Your task to perform on an android device: open app "Firefox Browser" (install if not already installed) Image 0: 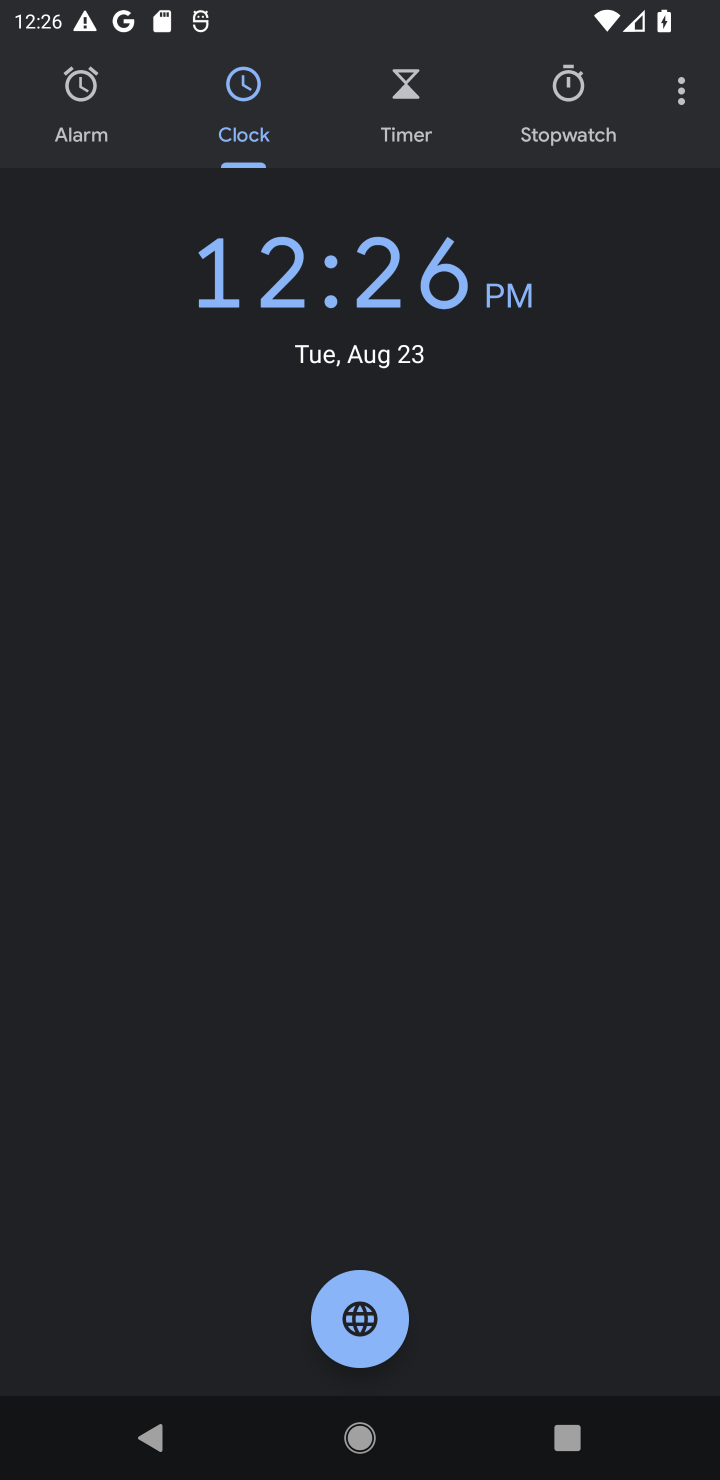
Step 0: press back button
Your task to perform on an android device: open app "Firefox Browser" (install if not already installed) Image 1: 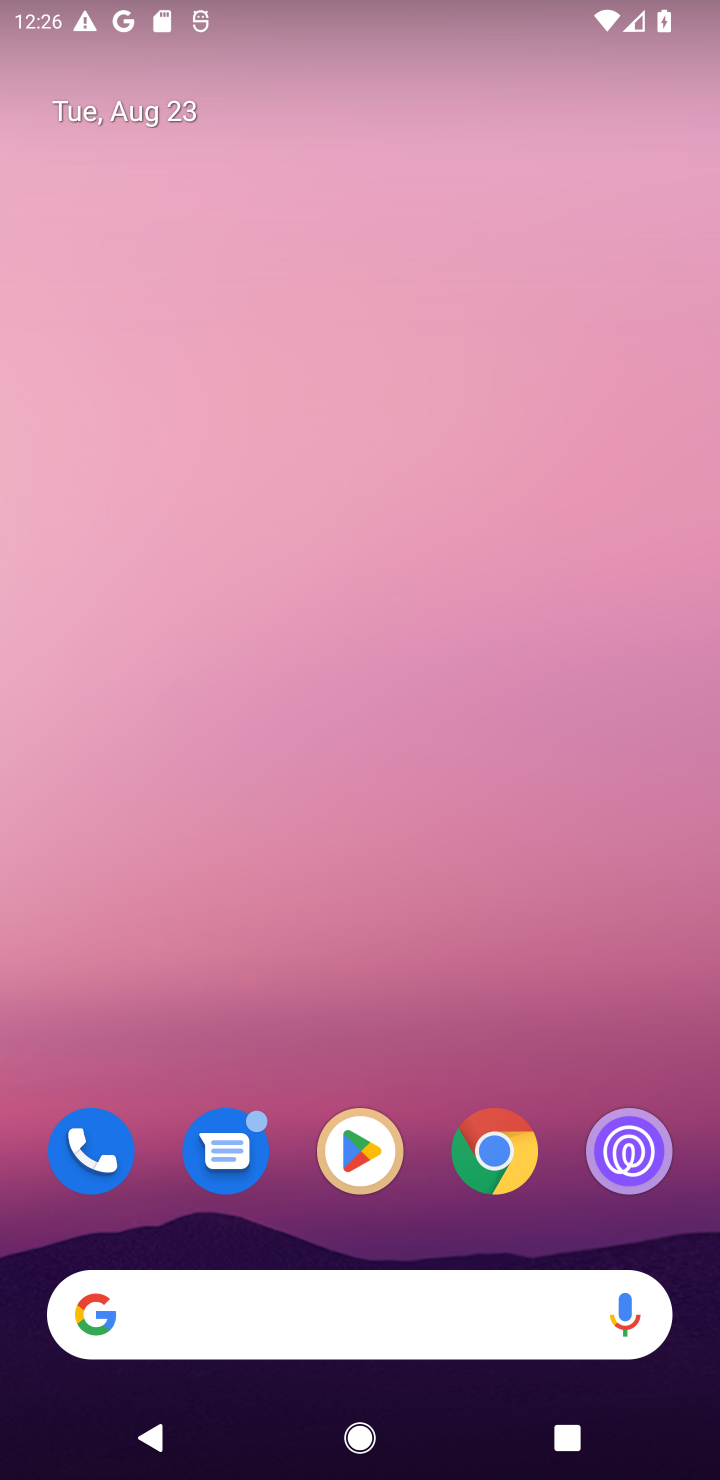
Step 1: click (345, 1127)
Your task to perform on an android device: open app "Firefox Browser" (install if not already installed) Image 2: 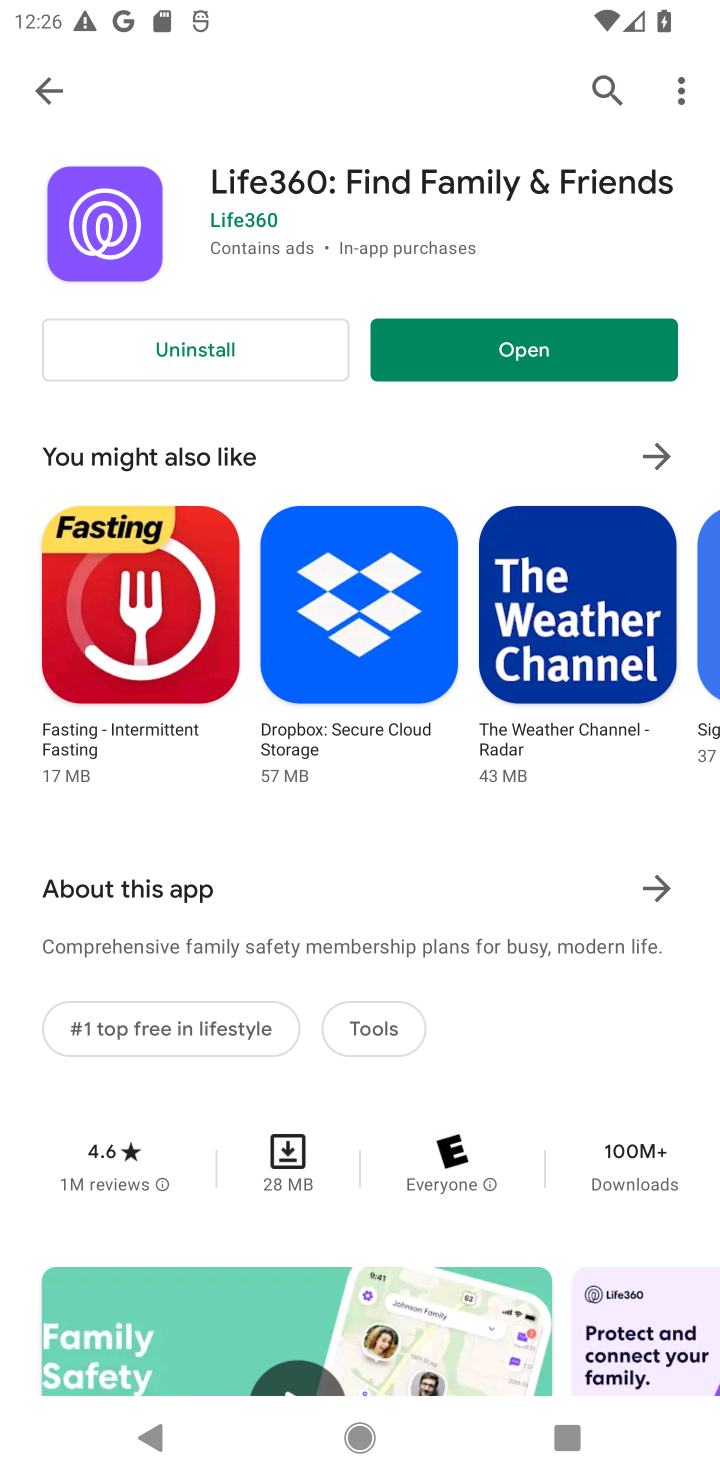
Step 2: click (593, 94)
Your task to perform on an android device: open app "Firefox Browser" (install if not already installed) Image 3: 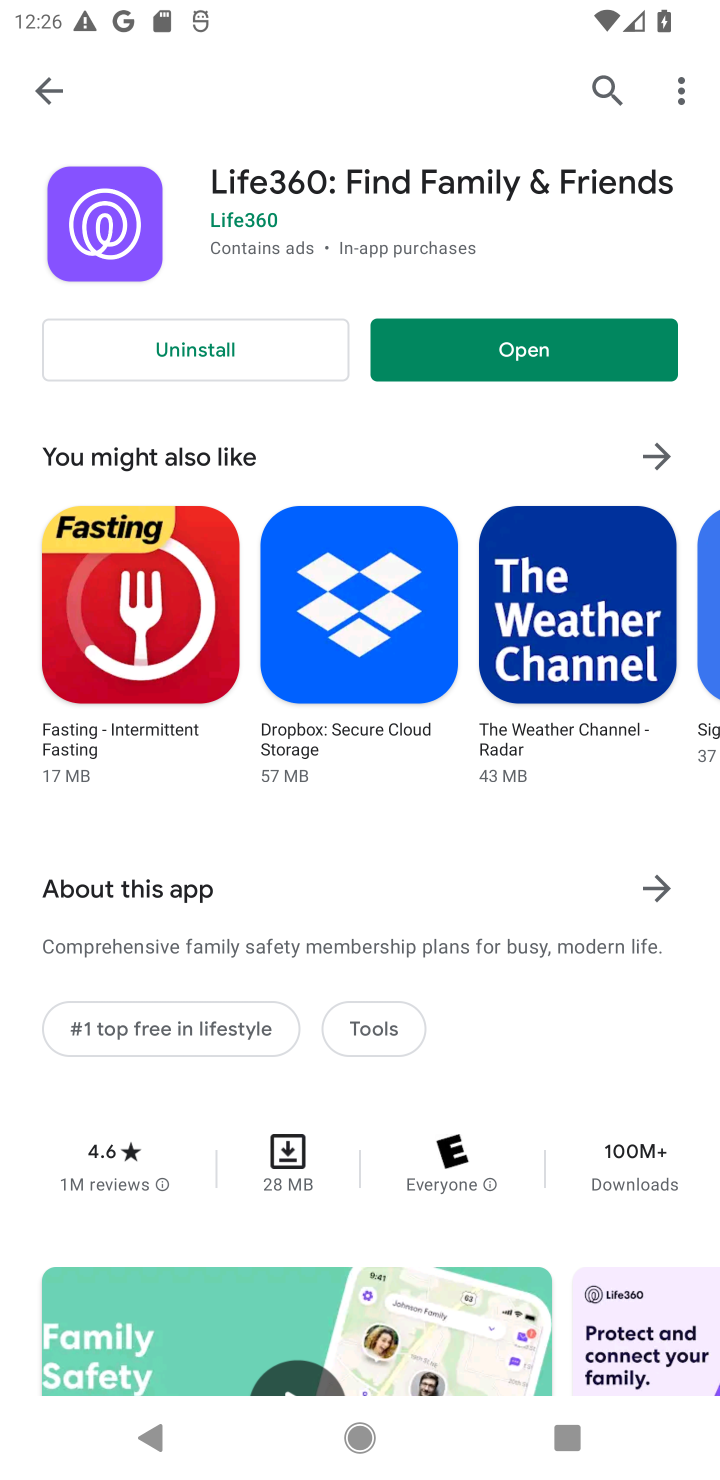
Step 3: click (606, 87)
Your task to perform on an android device: open app "Firefox Browser" (install if not already installed) Image 4: 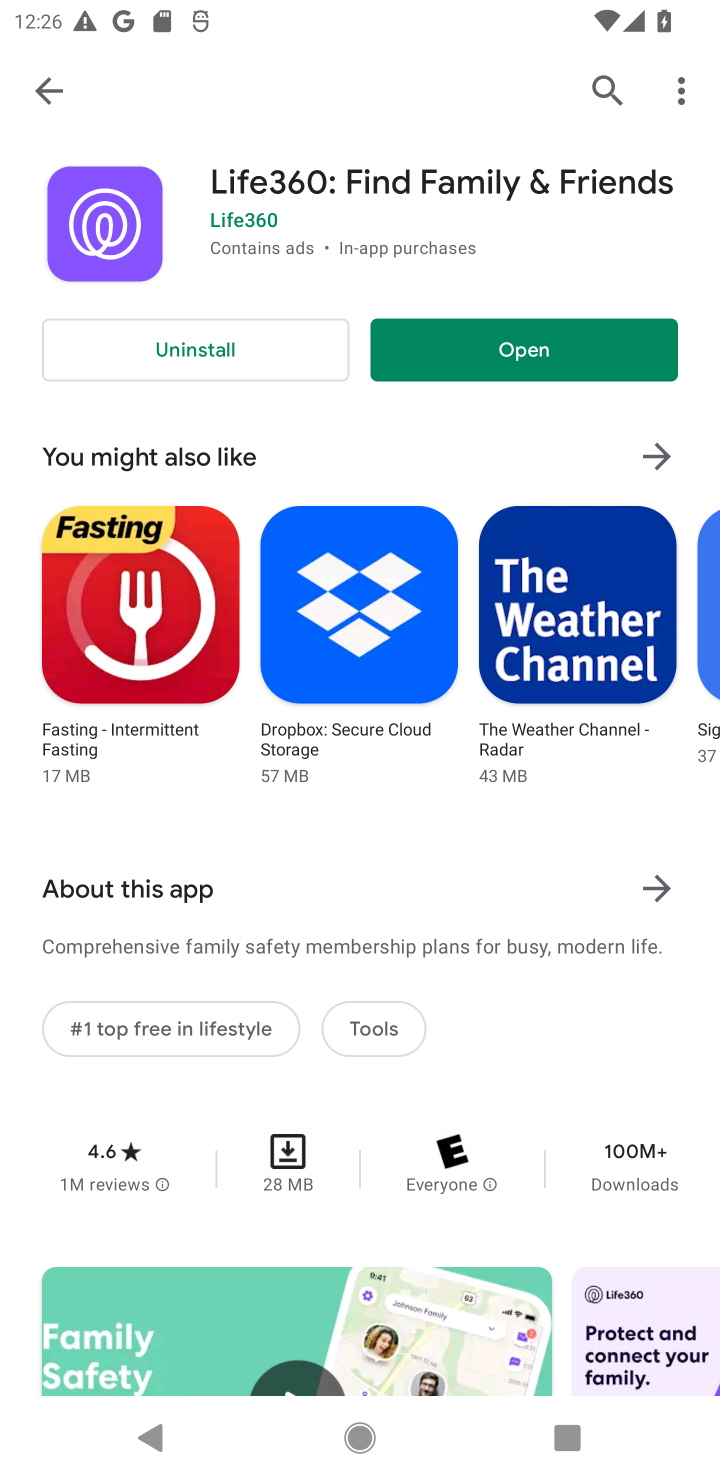
Step 4: click (587, 81)
Your task to perform on an android device: open app "Firefox Browser" (install if not already installed) Image 5: 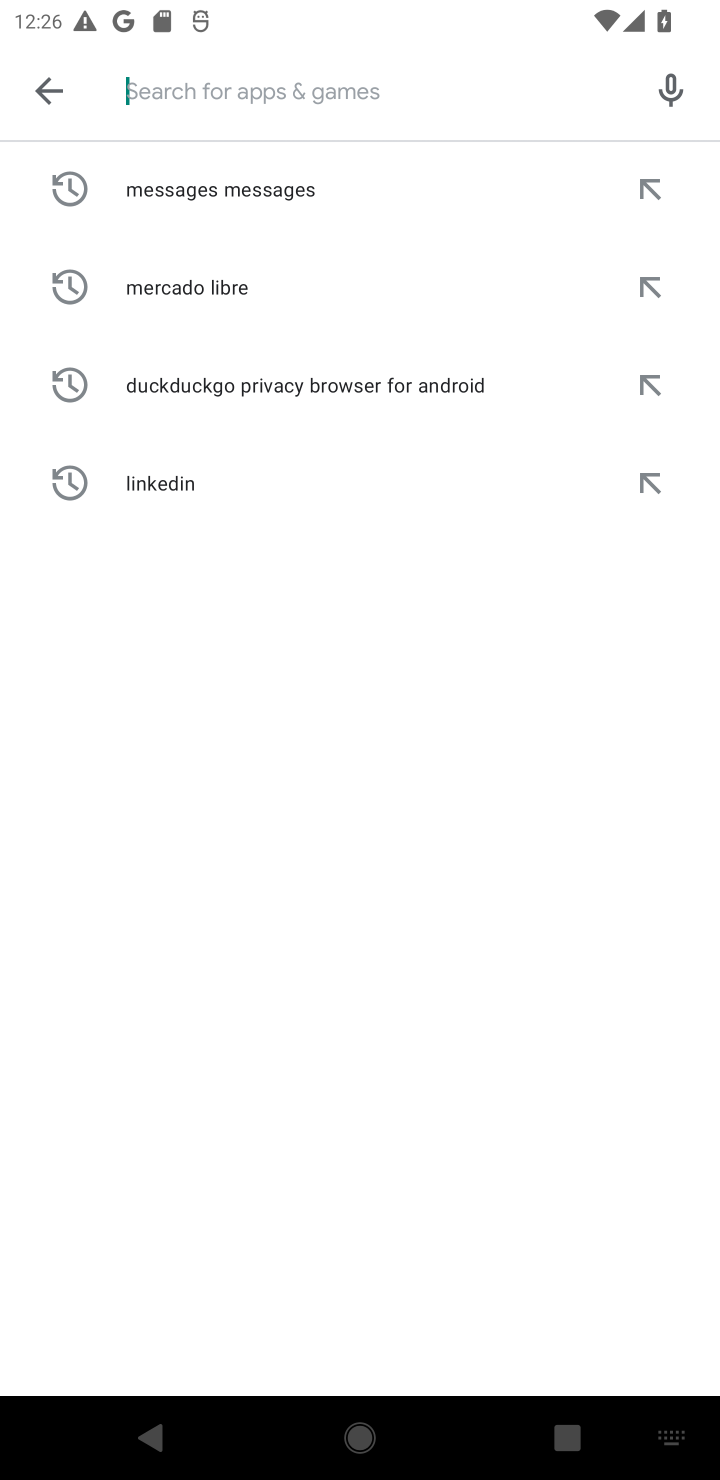
Step 5: type "Firefox Browser"
Your task to perform on an android device: open app "Firefox Browser" (install if not already installed) Image 6: 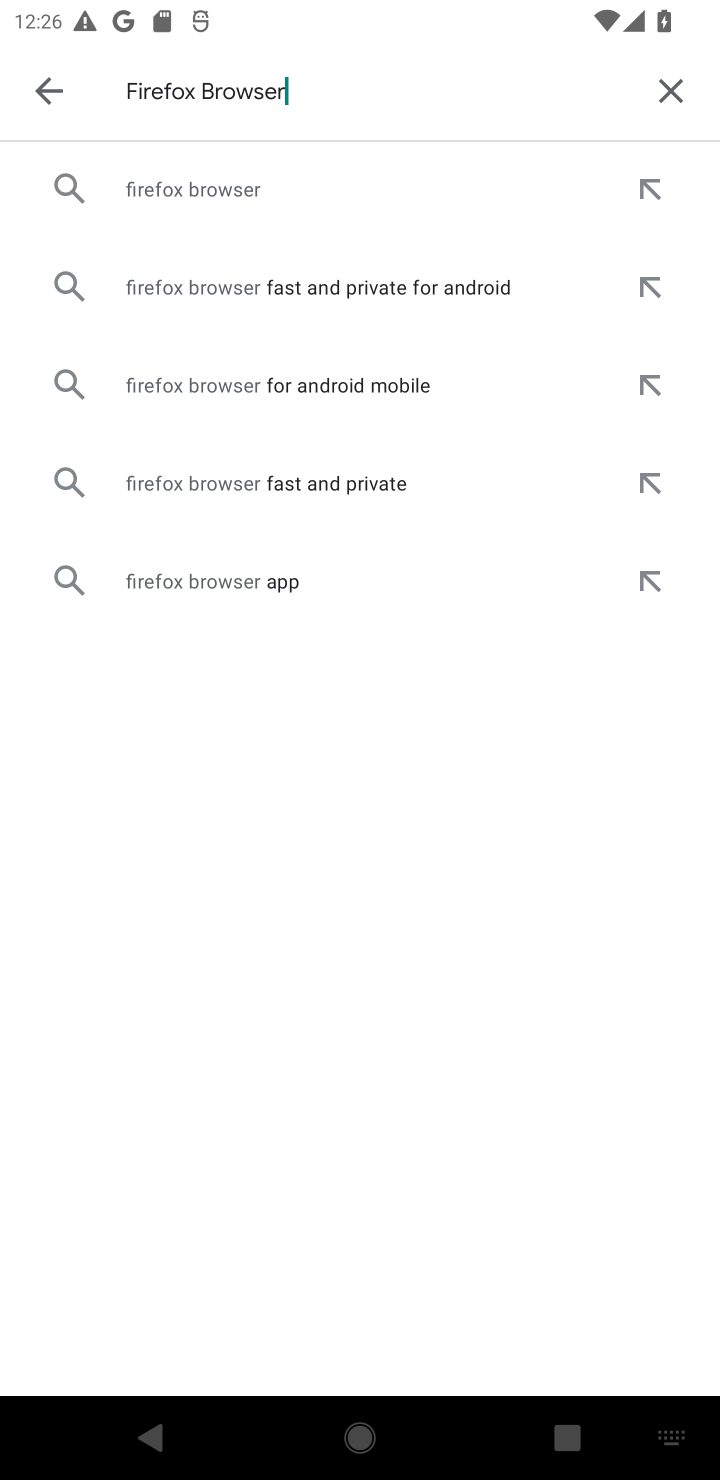
Step 6: click (244, 180)
Your task to perform on an android device: open app "Firefox Browser" (install if not already installed) Image 7: 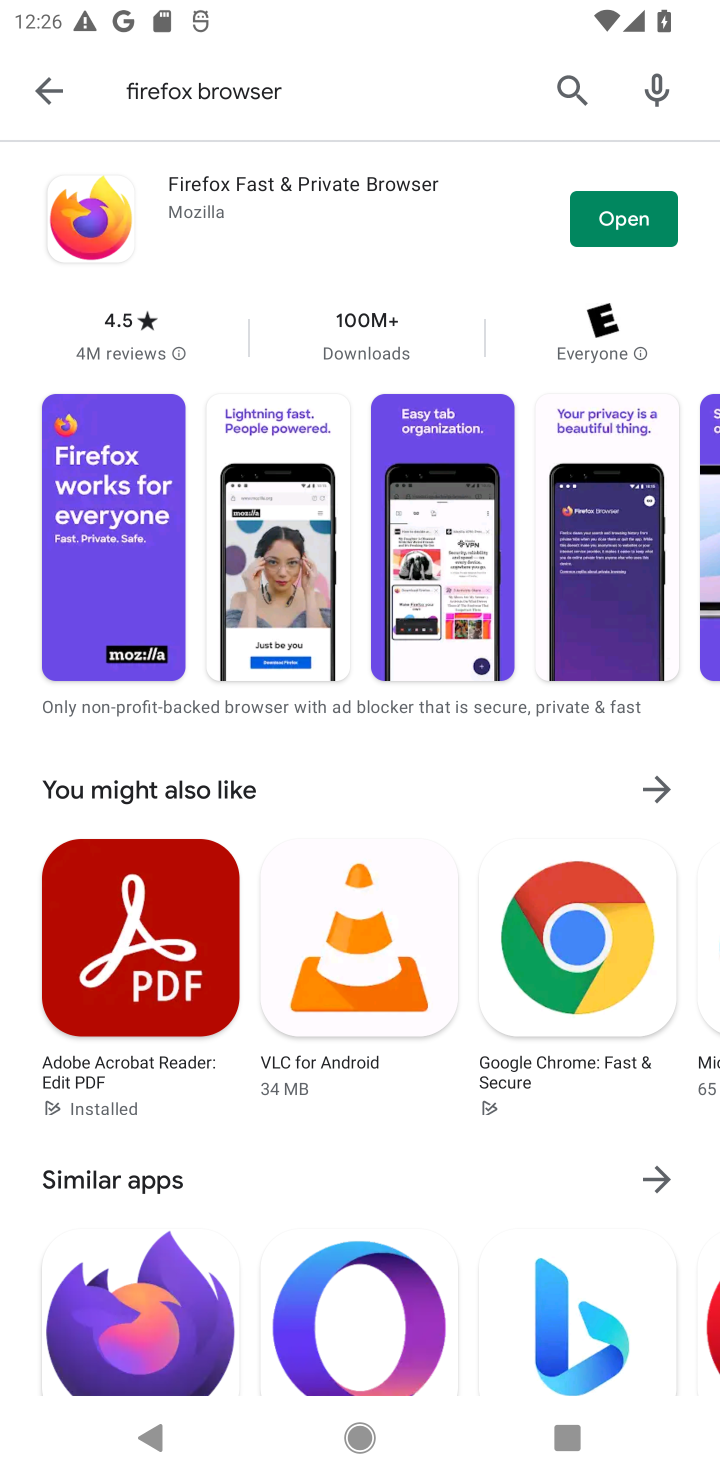
Step 7: click (619, 200)
Your task to perform on an android device: open app "Firefox Browser" (install if not already installed) Image 8: 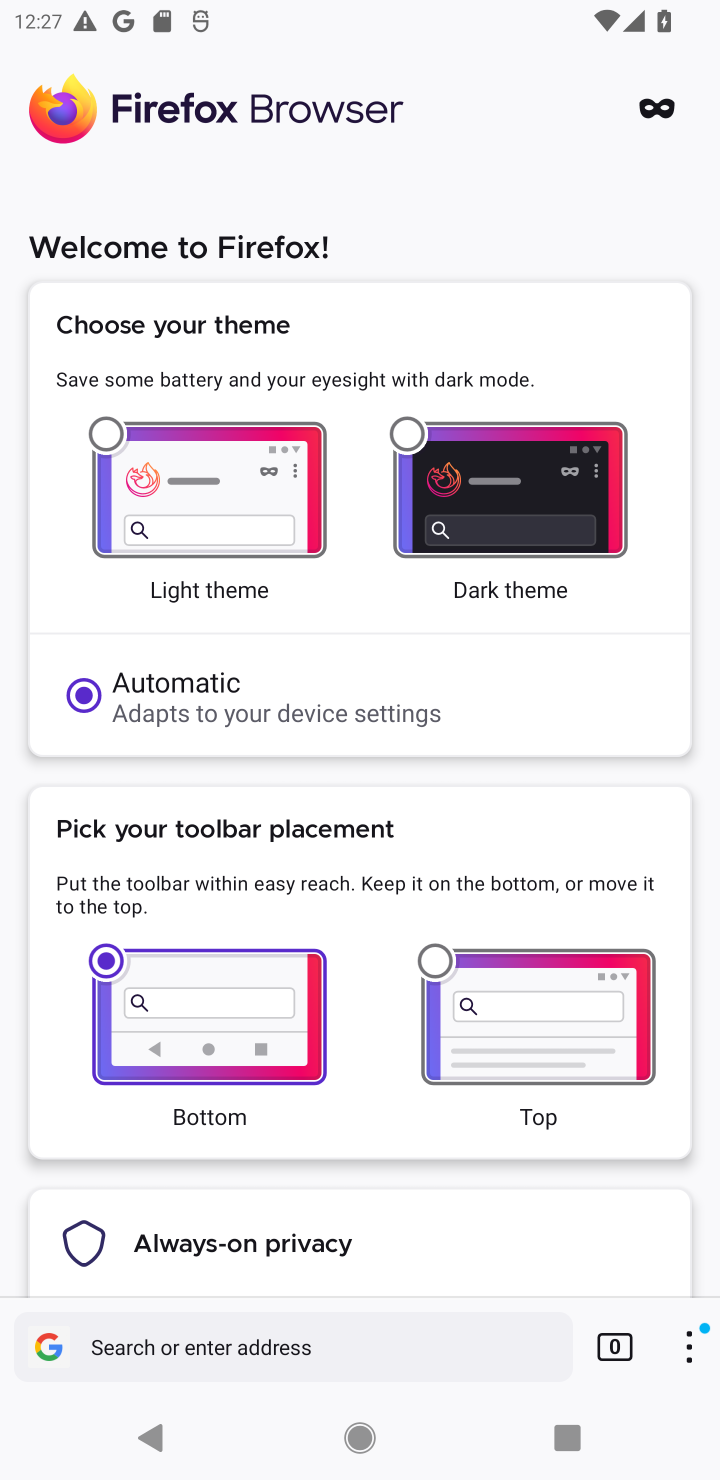
Step 8: task complete